Your task to perform on an android device: turn on translation in the chrome app Image 0: 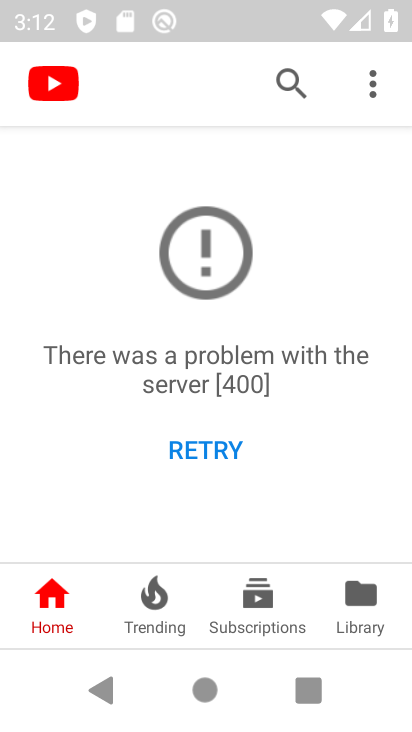
Step 0: press home button
Your task to perform on an android device: turn on translation in the chrome app Image 1: 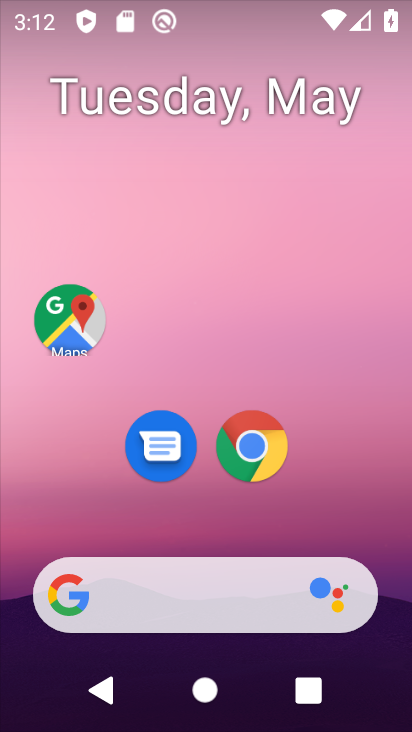
Step 1: click (254, 453)
Your task to perform on an android device: turn on translation in the chrome app Image 2: 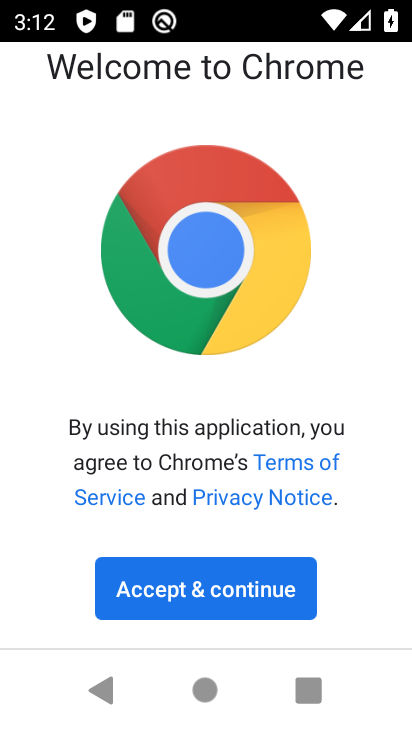
Step 2: click (233, 601)
Your task to perform on an android device: turn on translation in the chrome app Image 3: 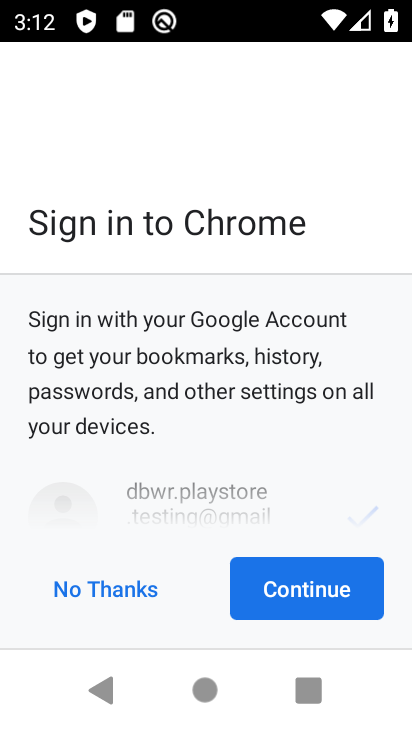
Step 3: click (315, 593)
Your task to perform on an android device: turn on translation in the chrome app Image 4: 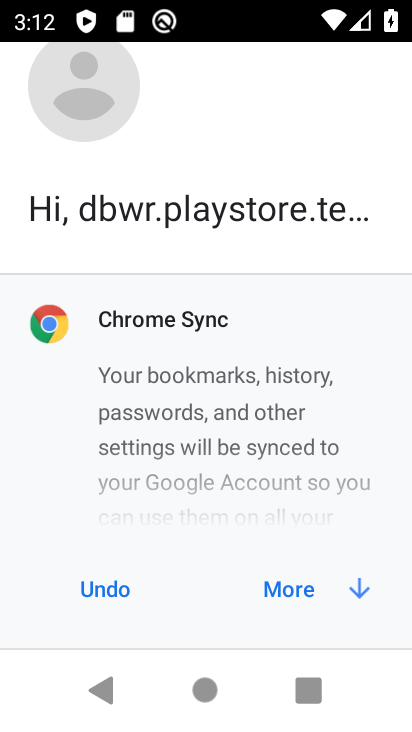
Step 4: click (276, 588)
Your task to perform on an android device: turn on translation in the chrome app Image 5: 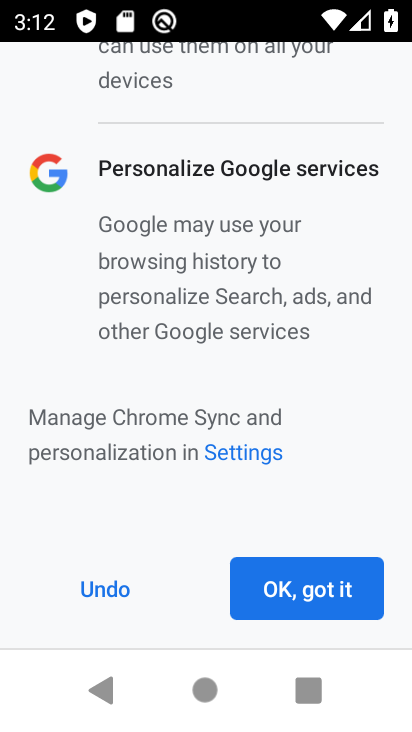
Step 5: click (276, 588)
Your task to perform on an android device: turn on translation in the chrome app Image 6: 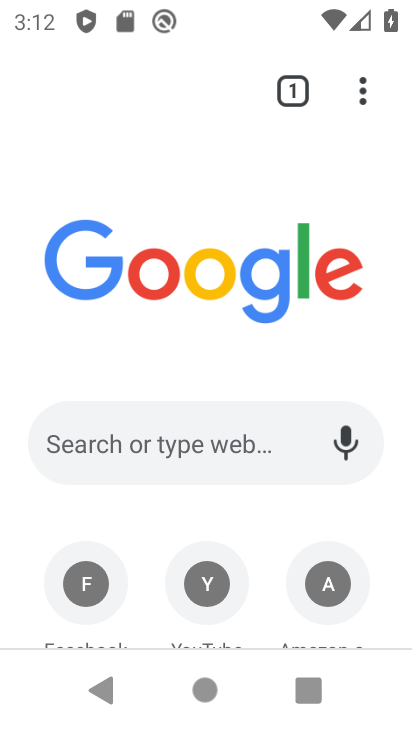
Step 6: click (365, 100)
Your task to perform on an android device: turn on translation in the chrome app Image 7: 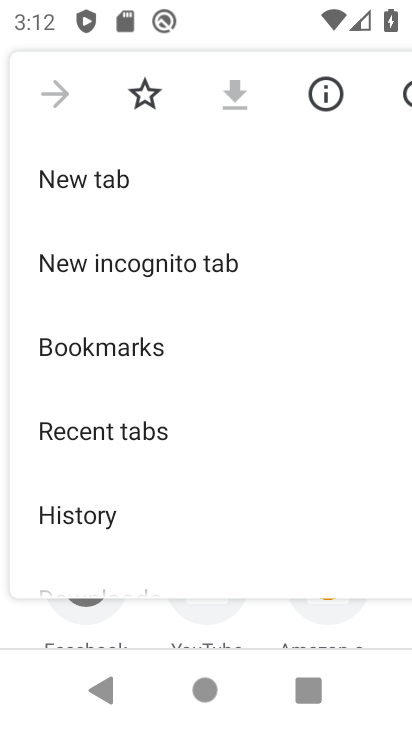
Step 7: drag from (154, 547) to (186, 235)
Your task to perform on an android device: turn on translation in the chrome app Image 8: 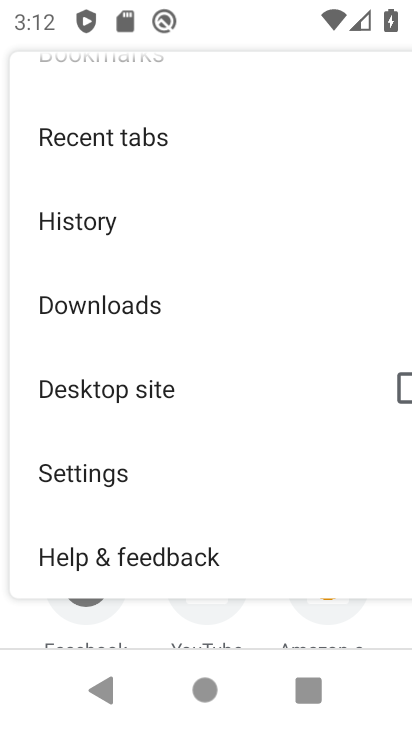
Step 8: click (111, 482)
Your task to perform on an android device: turn on translation in the chrome app Image 9: 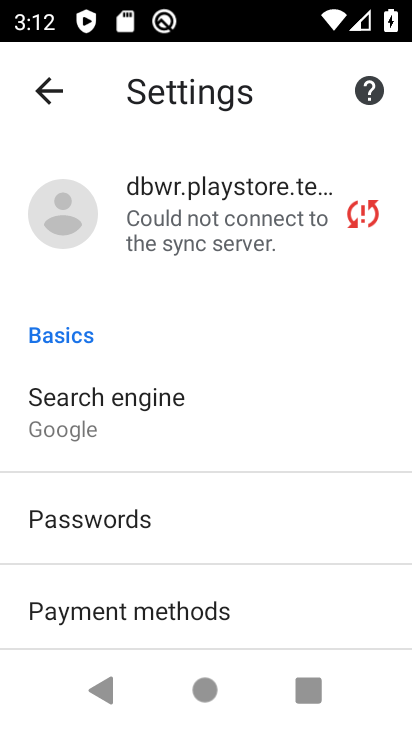
Step 9: drag from (202, 625) to (206, 312)
Your task to perform on an android device: turn on translation in the chrome app Image 10: 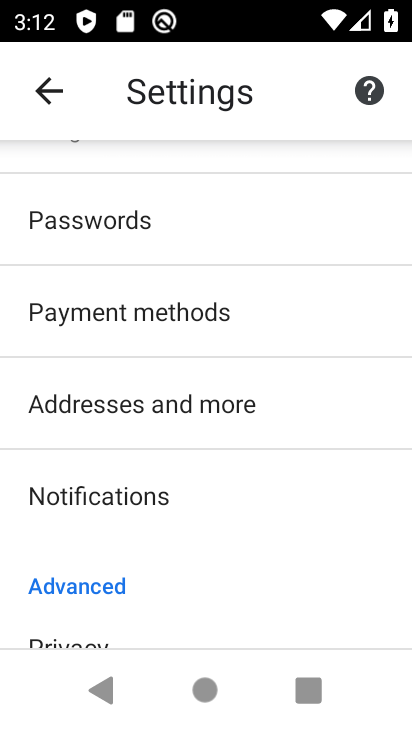
Step 10: drag from (213, 616) to (244, 267)
Your task to perform on an android device: turn on translation in the chrome app Image 11: 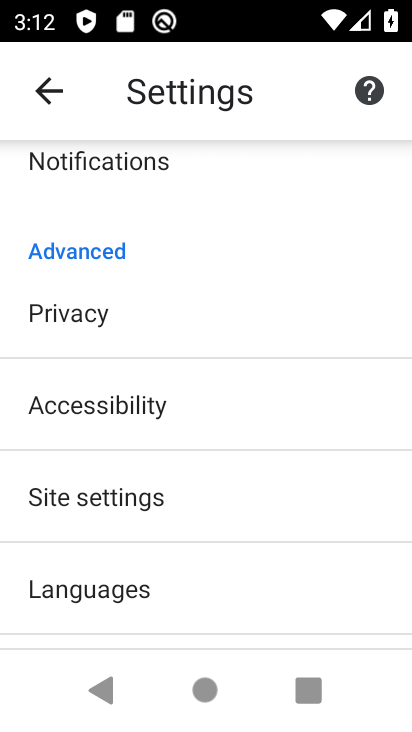
Step 11: click (122, 590)
Your task to perform on an android device: turn on translation in the chrome app Image 12: 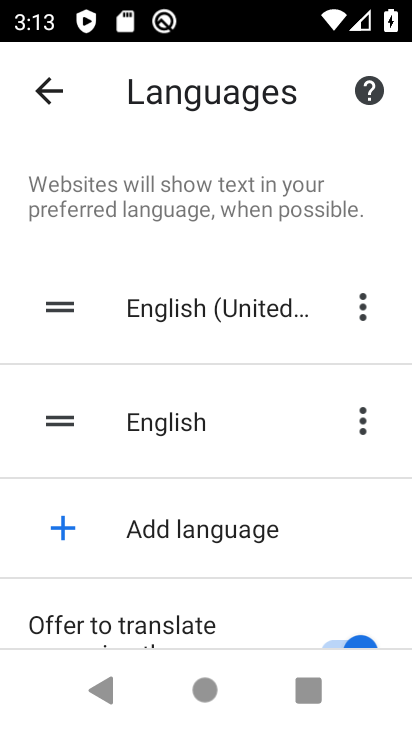
Step 12: task complete